Your task to perform on an android device: Empty the shopping cart on walmart. Image 0: 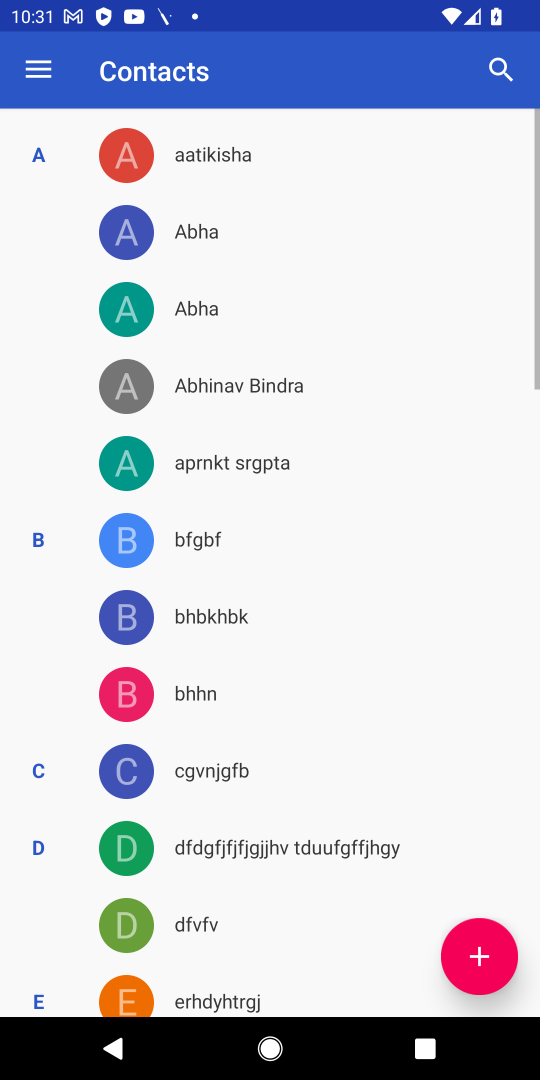
Step 0: press home button
Your task to perform on an android device: Empty the shopping cart on walmart. Image 1: 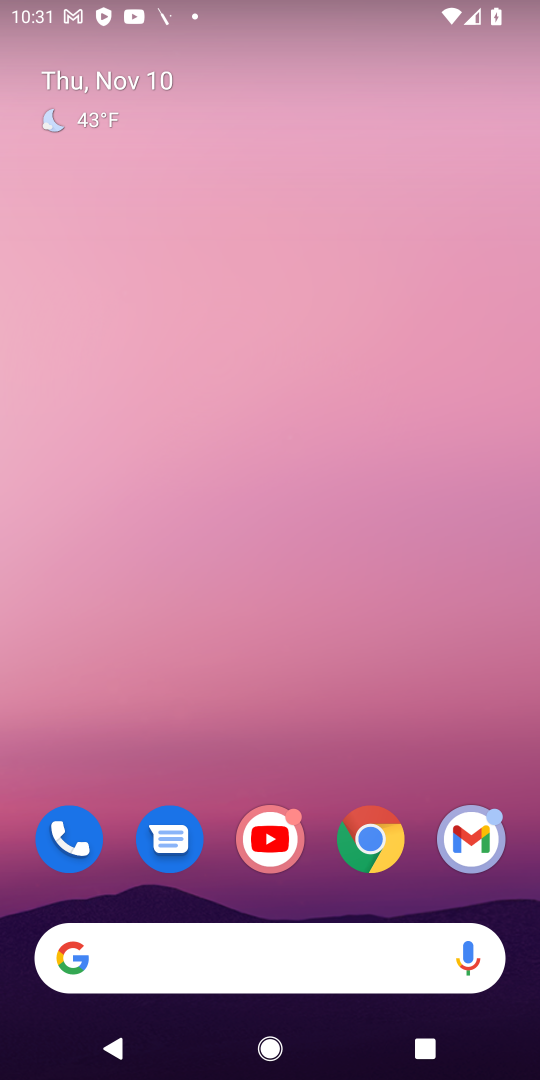
Step 1: click (382, 835)
Your task to perform on an android device: Empty the shopping cart on walmart. Image 2: 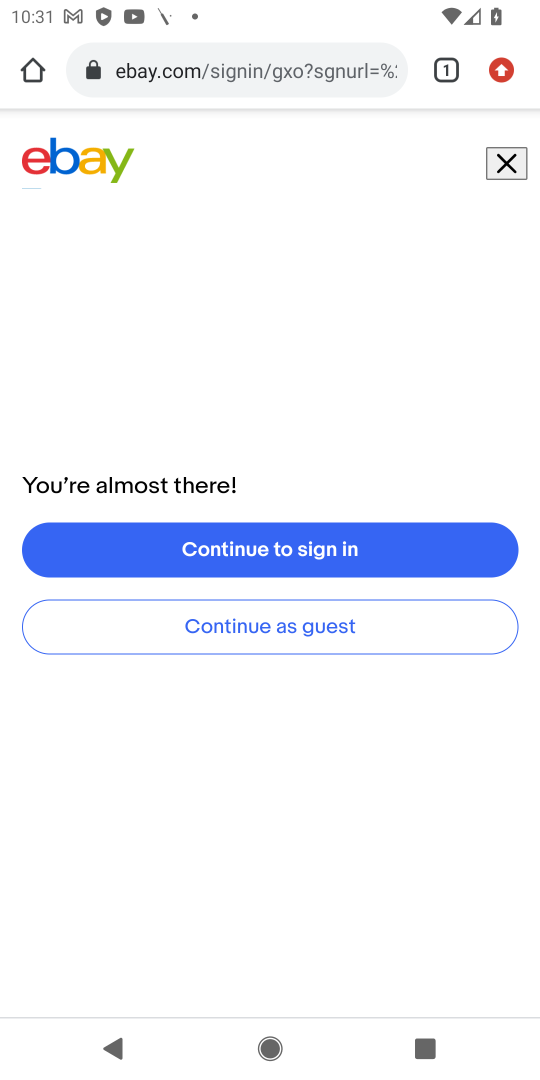
Step 2: click (278, 64)
Your task to perform on an android device: Empty the shopping cart on walmart. Image 3: 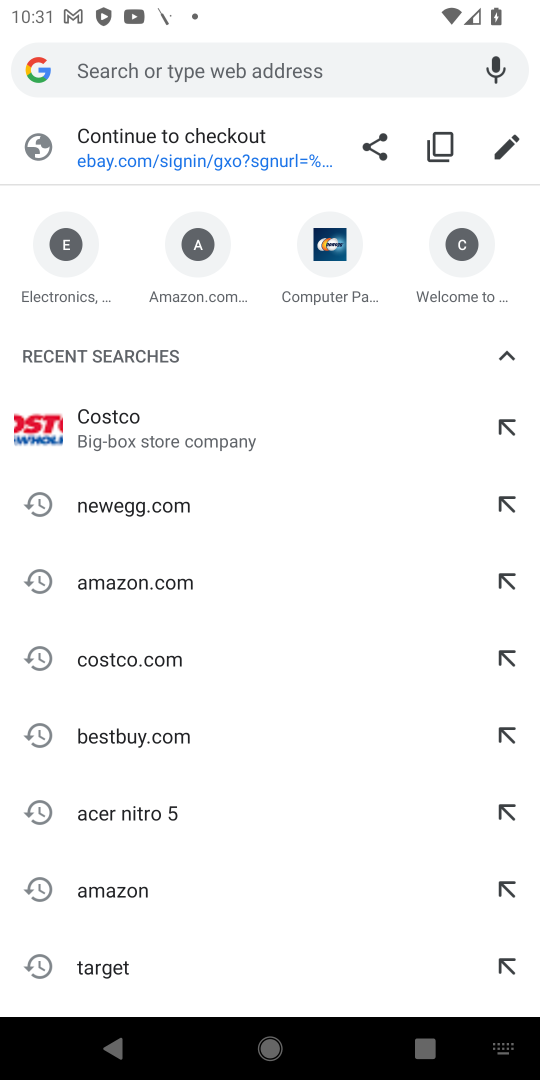
Step 3: drag from (167, 763) to (259, 282)
Your task to perform on an android device: Empty the shopping cart on walmart. Image 4: 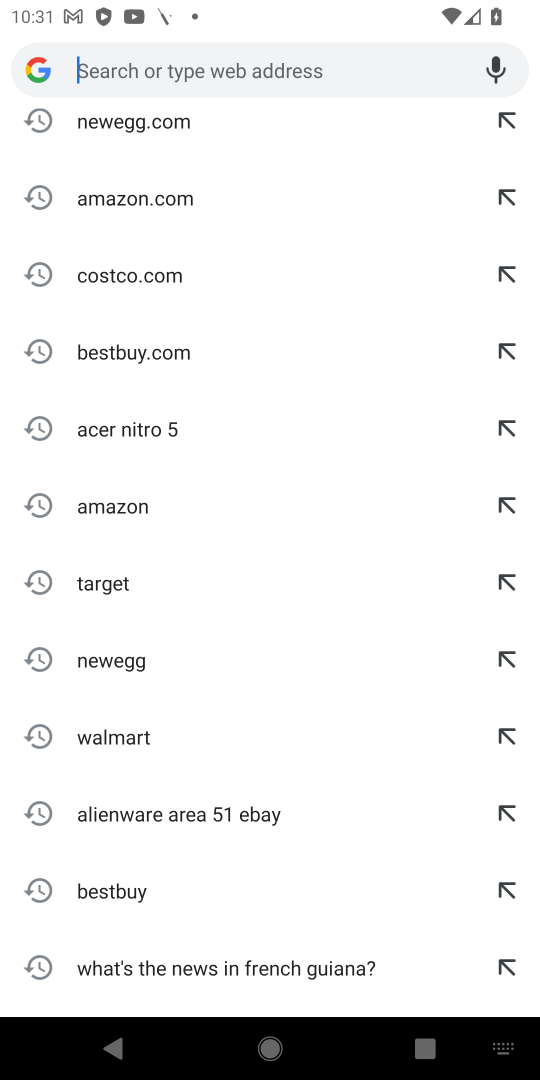
Step 4: drag from (234, 752) to (229, 638)
Your task to perform on an android device: Empty the shopping cart on walmart. Image 5: 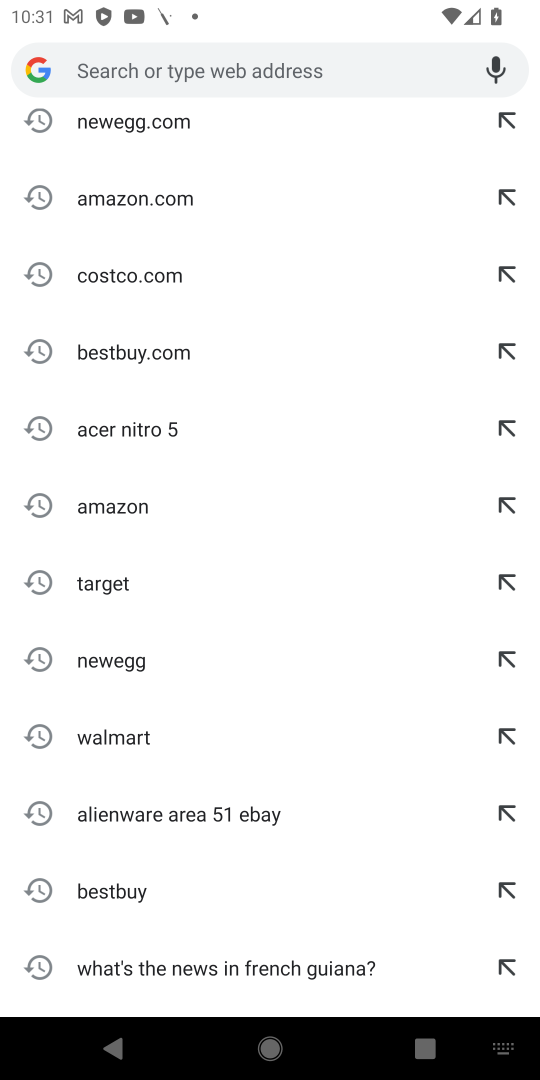
Step 5: click (127, 729)
Your task to perform on an android device: Empty the shopping cart on walmart. Image 6: 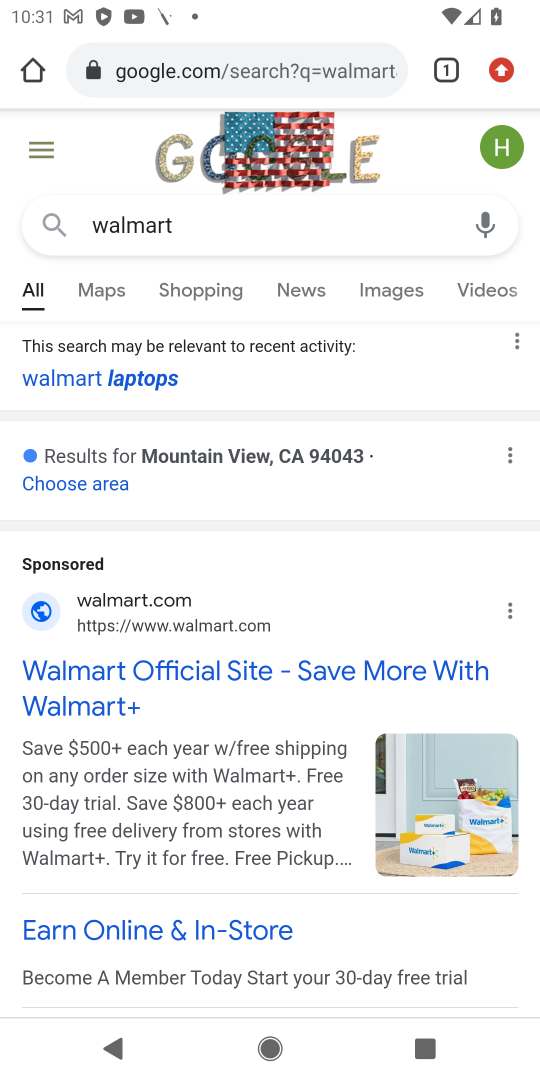
Step 6: drag from (215, 709) to (288, 380)
Your task to perform on an android device: Empty the shopping cart on walmart. Image 7: 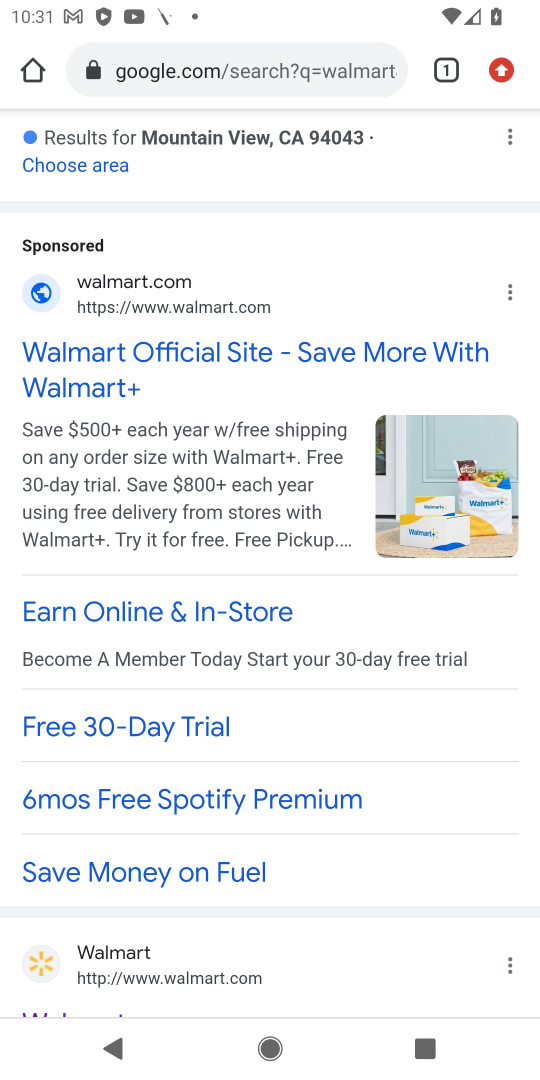
Step 7: click (222, 976)
Your task to perform on an android device: Empty the shopping cart on walmart. Image 8: 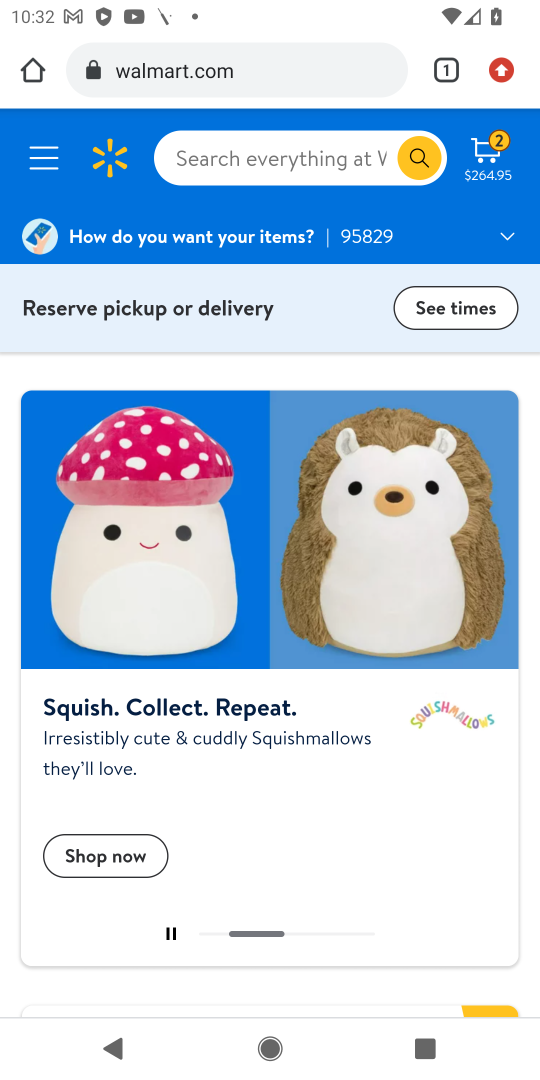
Step 8: click (496, 151)
Your task to perform on an android device: Empty the shopping cart on walmart. Image 9: 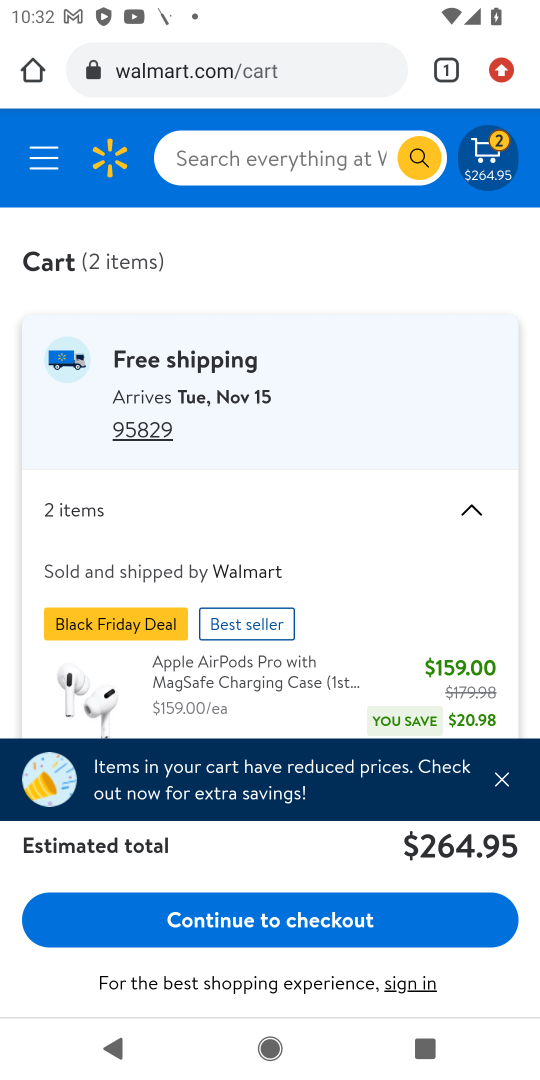
Step 9: drag from (421, 587) to (420, 198)
Your task to perform on an android device: Empty the shopping cart on walmart. Image 10: 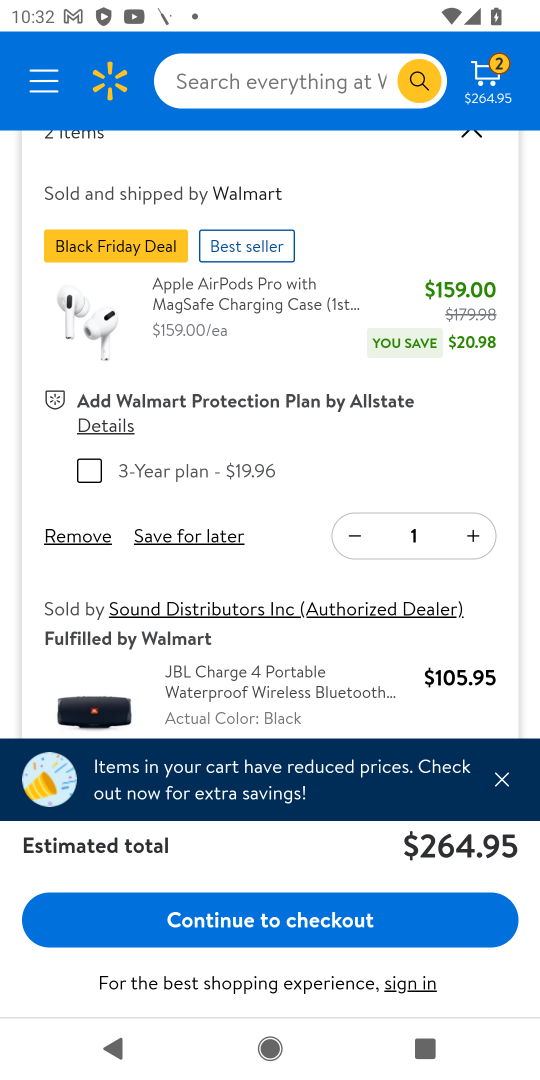
Step 10: click (95, 537)
Your task to perform on an android device: Empty the shopping cart on walmart. Image 11: 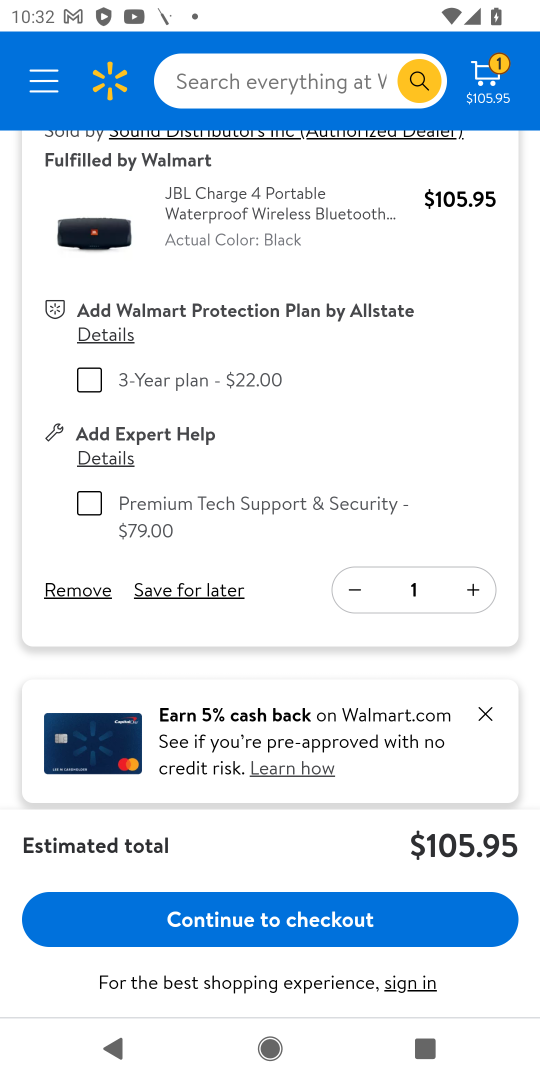
Step 11: click (98, 586)
Your task to perform on an android device: Empty the shopping cart on walmart. Image 12: 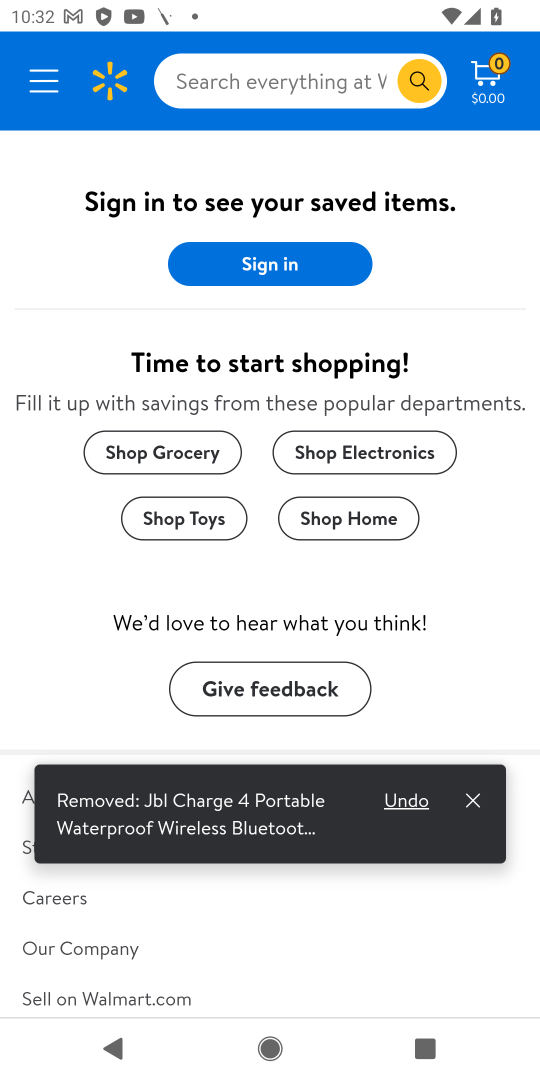
Step 12: task complete